Your task to perform on an android device: Do I have any events today? Image 0: 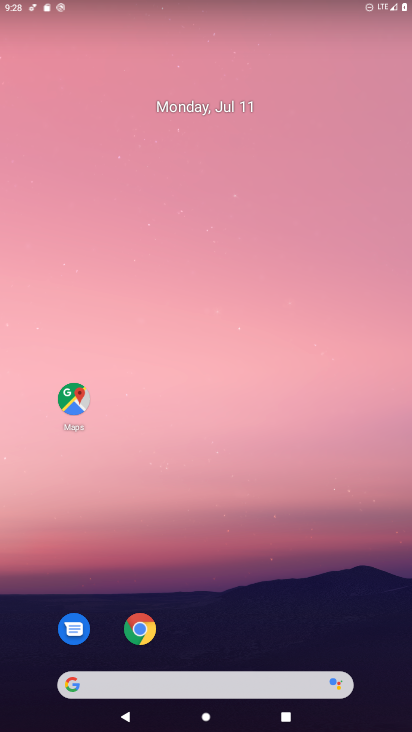
Step 0: click (203, 112)
Your task to perform on an android device: Do I have any events today? Image 1: 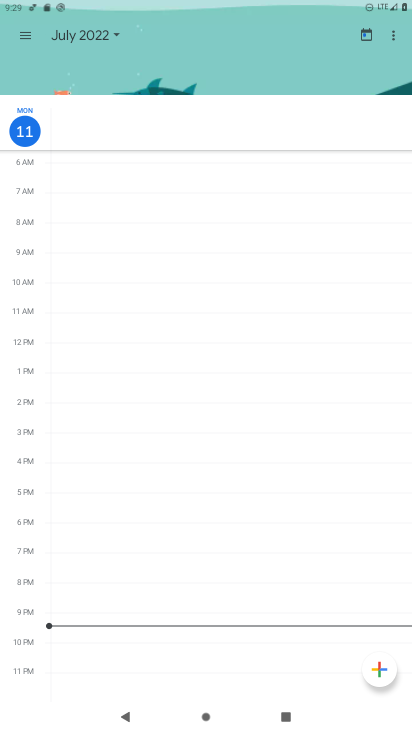
Step 1: task complete